Your task to perform on an android device: View the shopping cart on costco.com. Image 0: 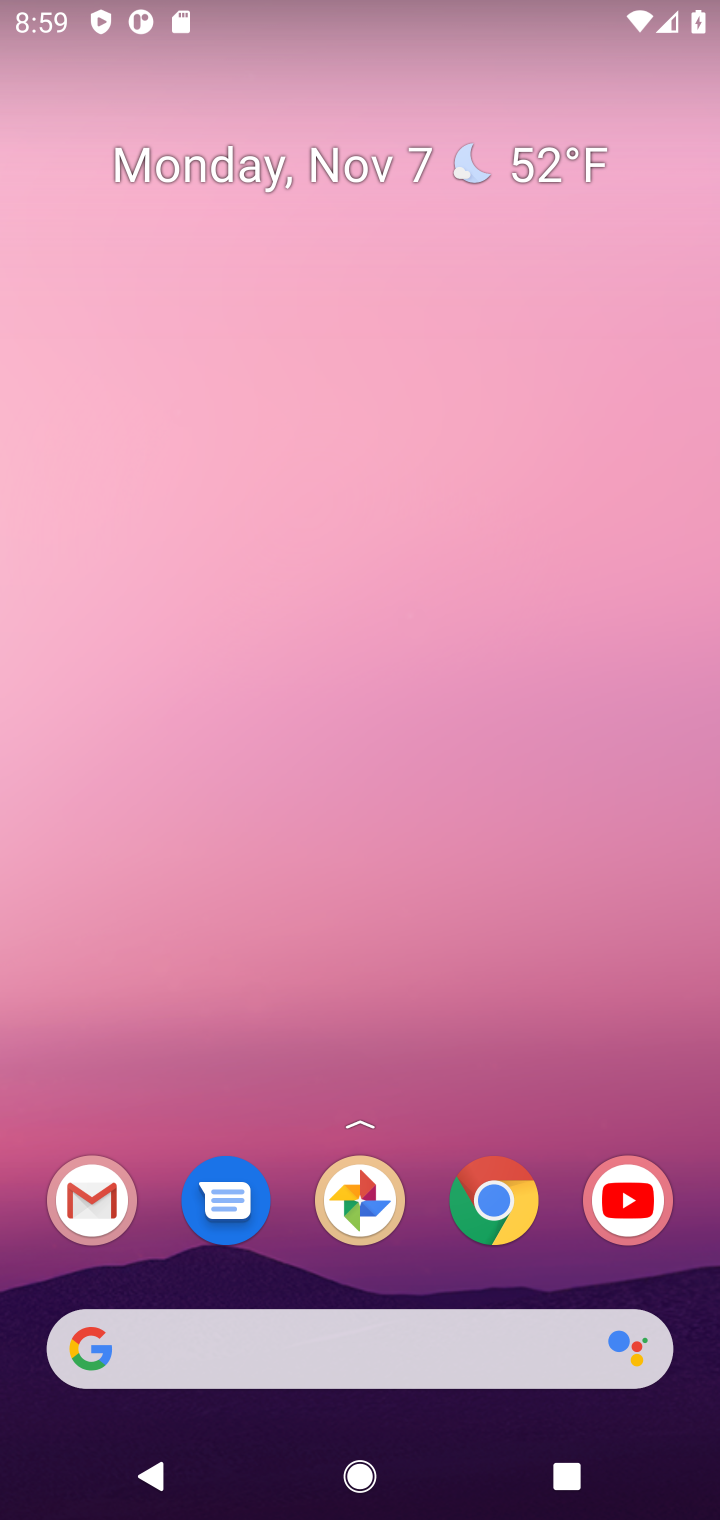
Step 0: click (506, 1195)
Your task to perform on an android device: View the shopping cart on costco.com. Image 1: 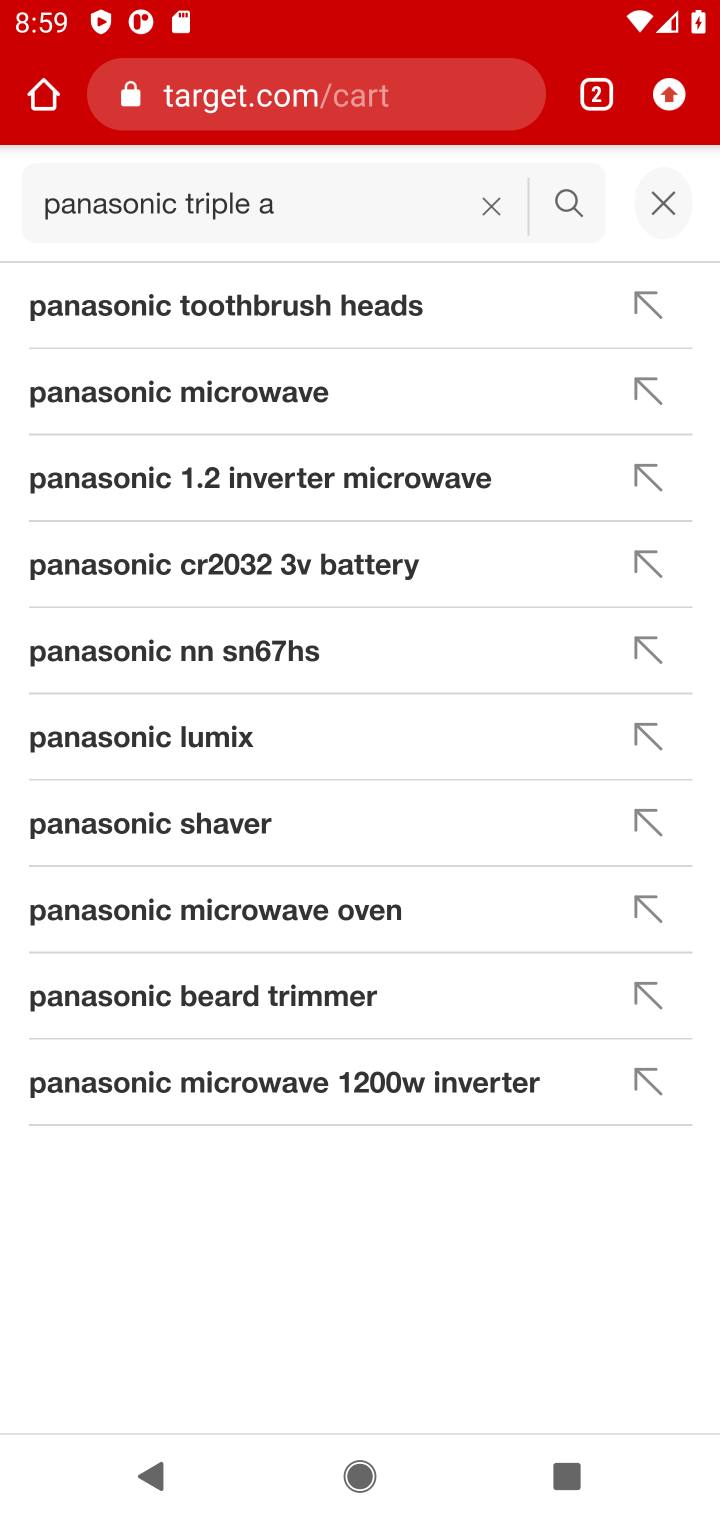
Step 1: click (339, 98)
Your task to perform on an android device: View the shopping cart on costco.com. Image 2: 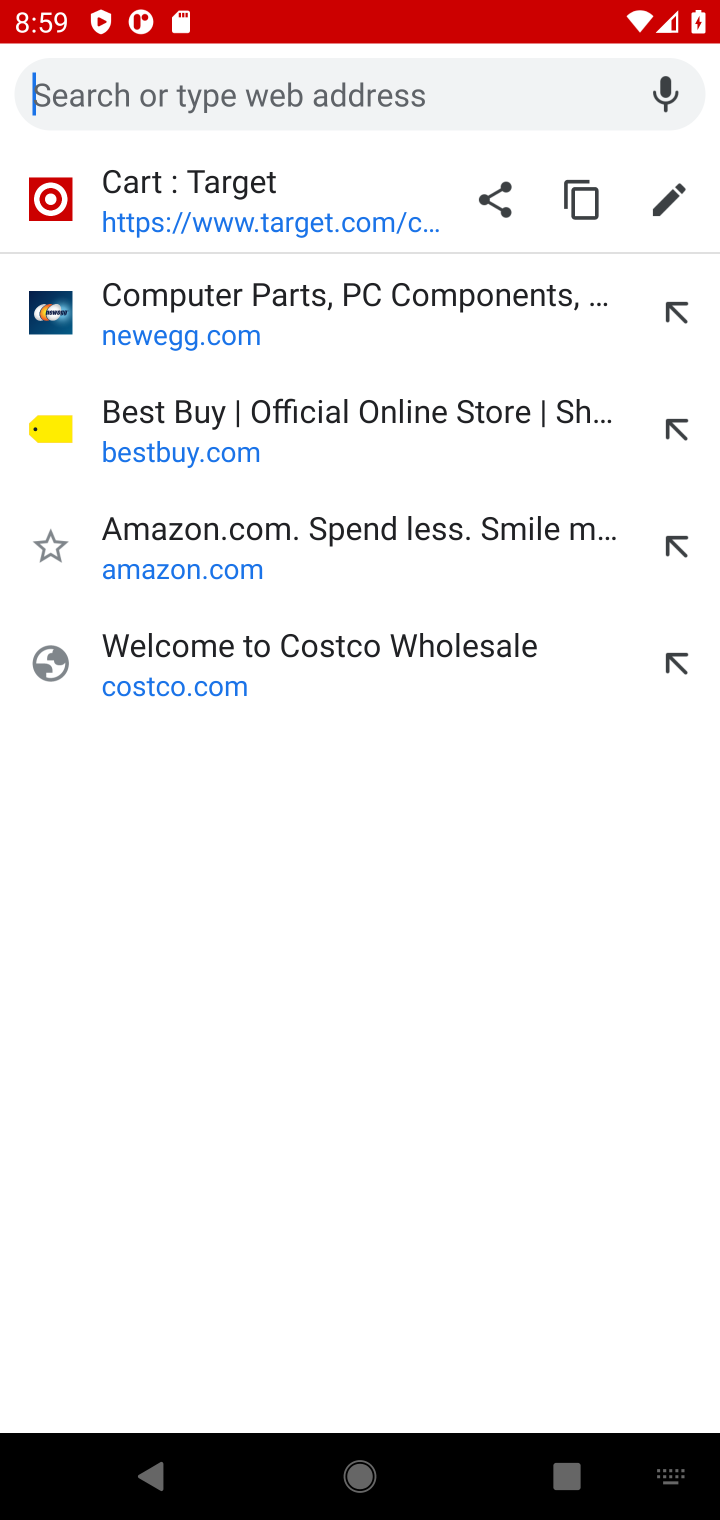
Step 2: type "costco.com"
Your task to perform on an android device: View the shopping cart on costco.com. Image 3: 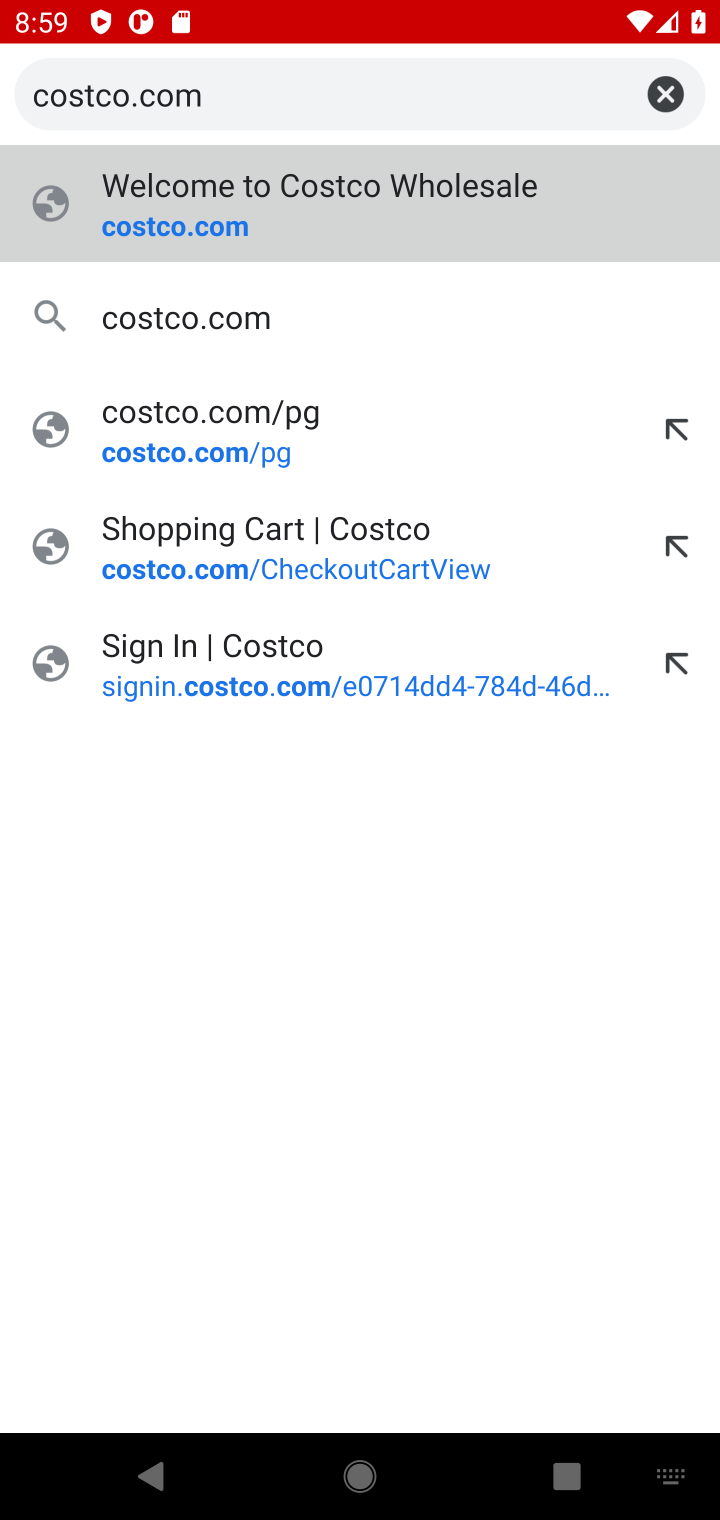
Step 3: click (245, 301)
Your task to perform on an android device: View the shopping cart on costco.com. Image 4: 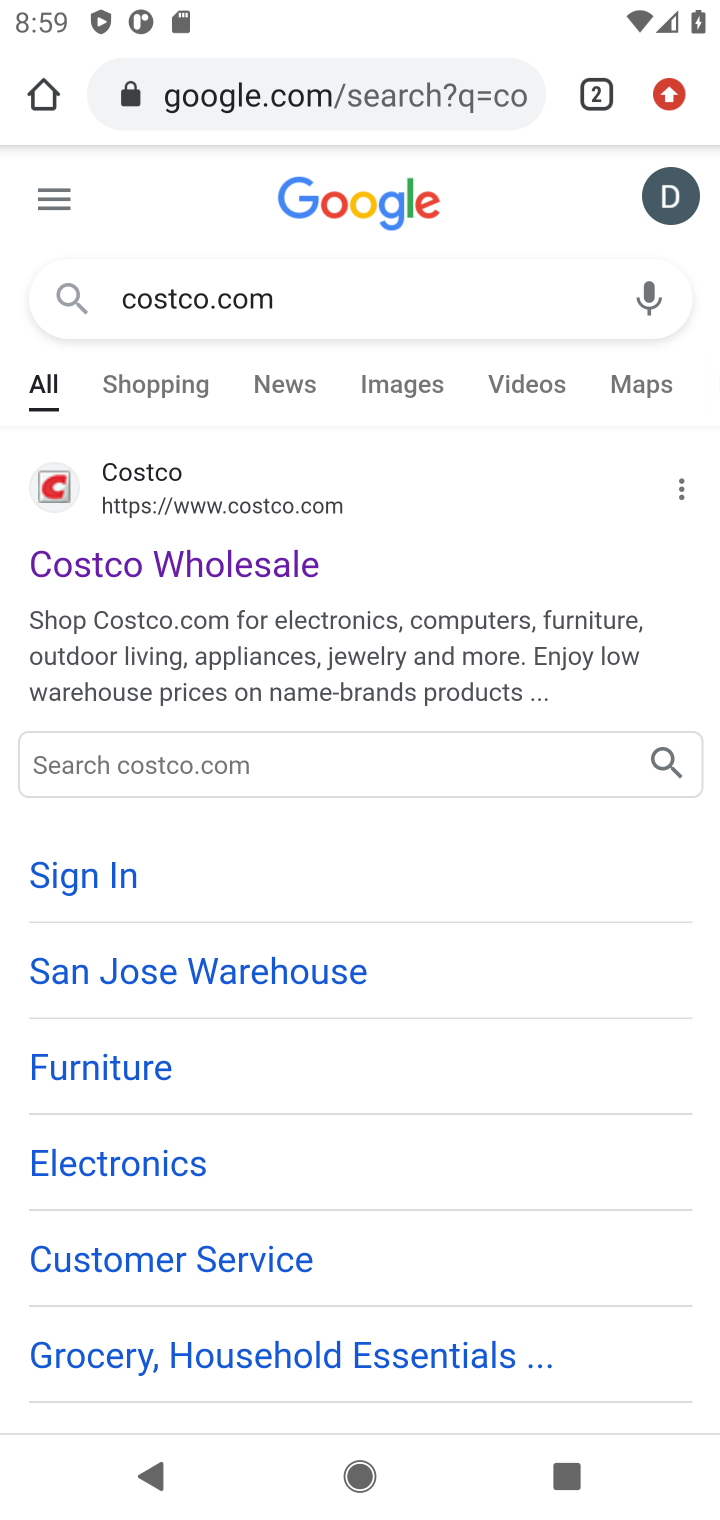
Step 4: click (274, 503)
Your task to perform on an android device: View the shopping cart on costco.com. Image 5: 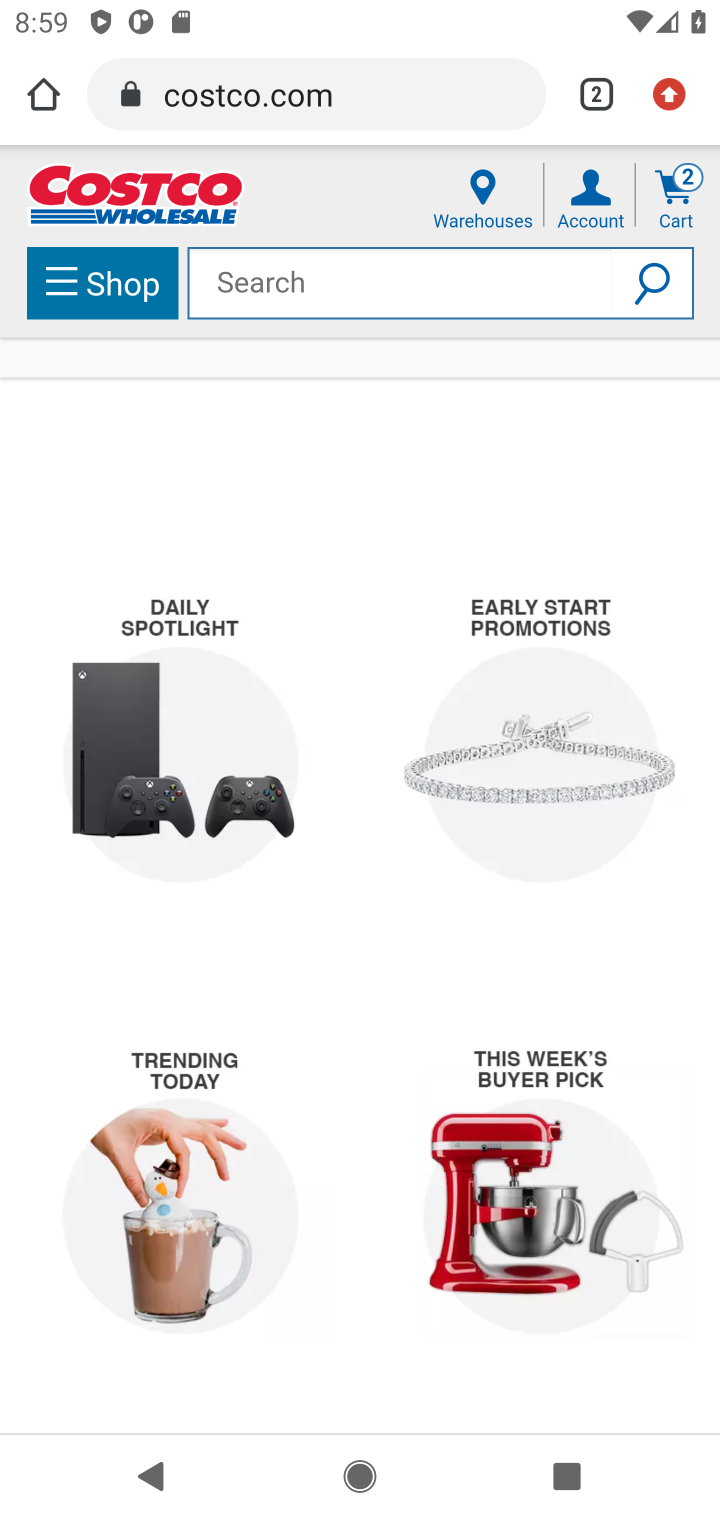
Step 5: click (679, 205)
Your task to perform on an android device: View the shopping cart on costco.com. Image 6: 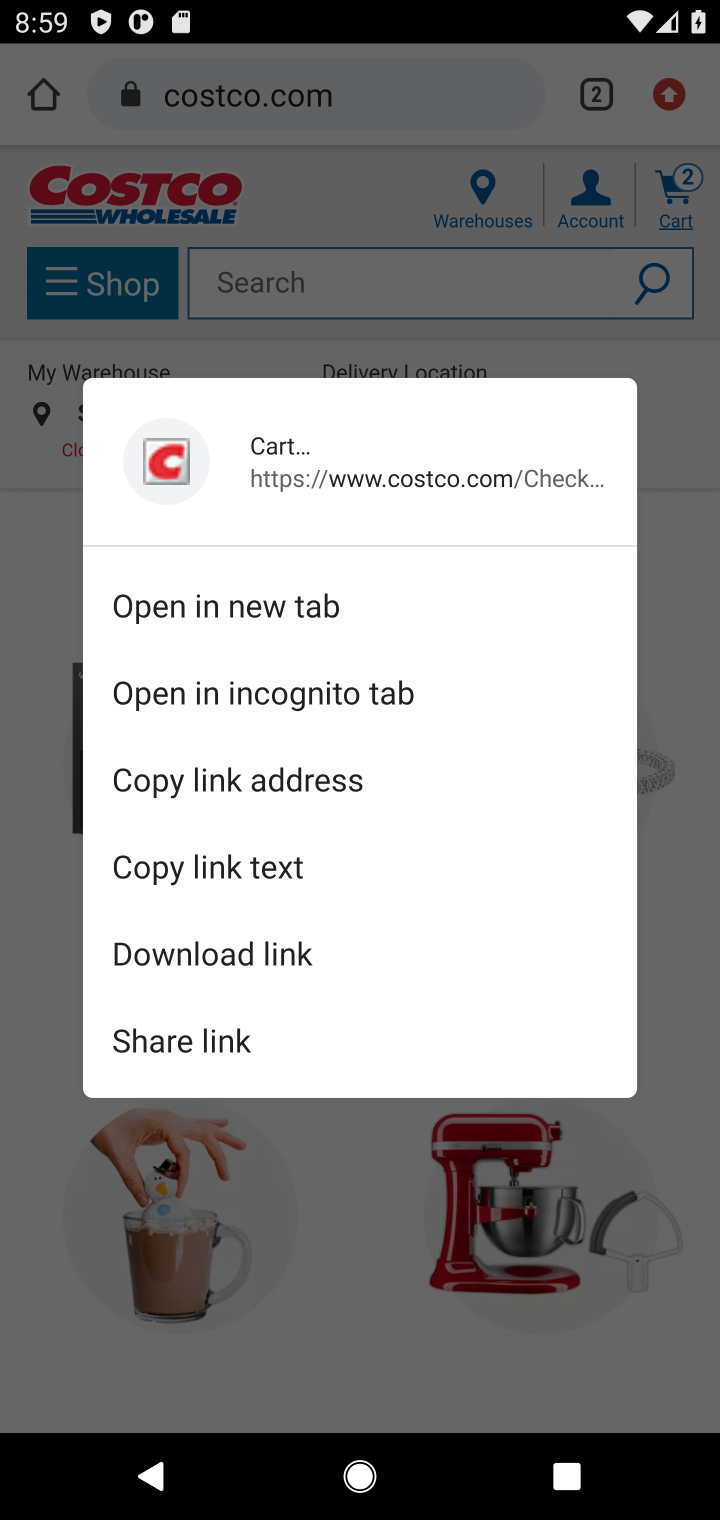
Step 6: click (679, 205)
Your task to perform on an android device: View the shopping cart on costco.com. Image 7: 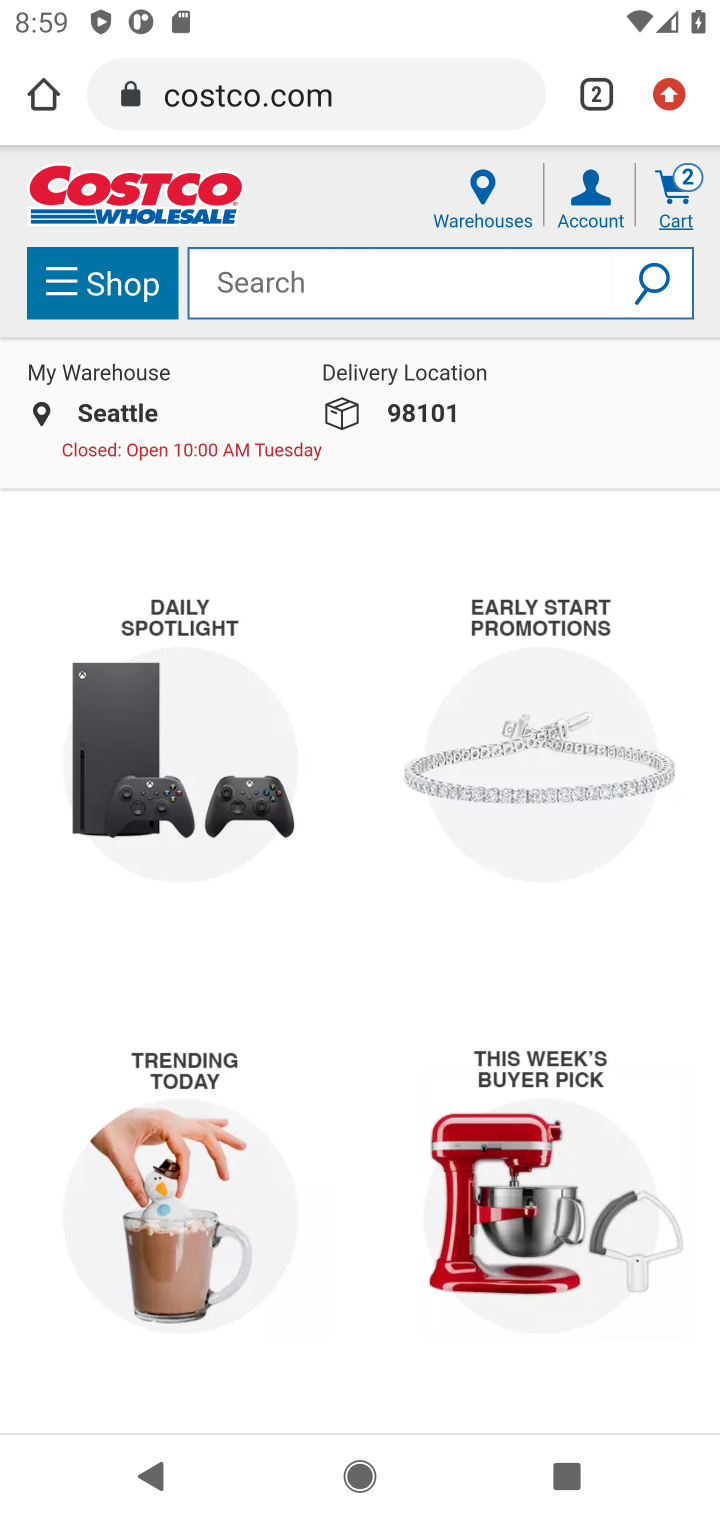
Step 7: click (678, 197)
Your task to perform on an android device: View the shopping cart on costco.com. Image 8: 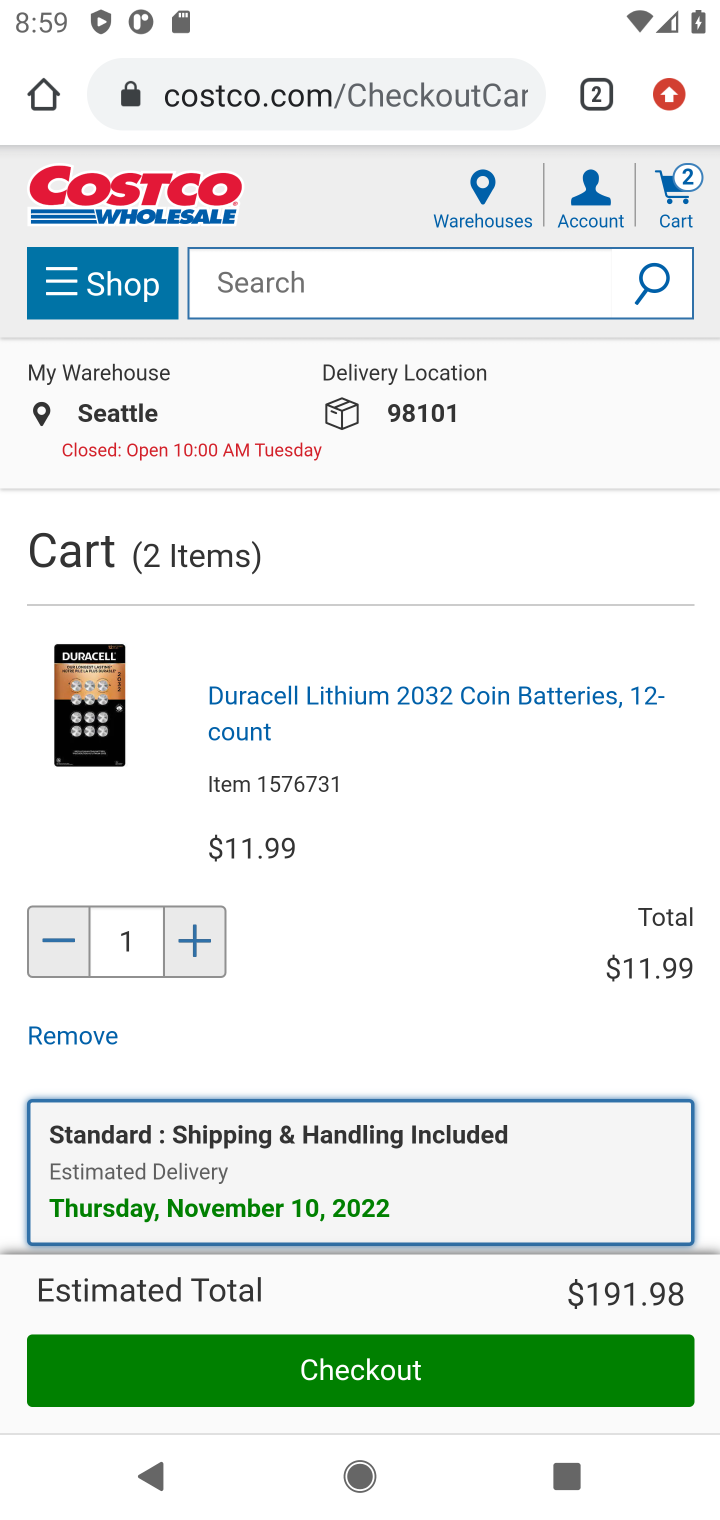
Step 8: click (64, 949)
Your task to perform on an android device: View the shopping cart on costco.com. Image 9: 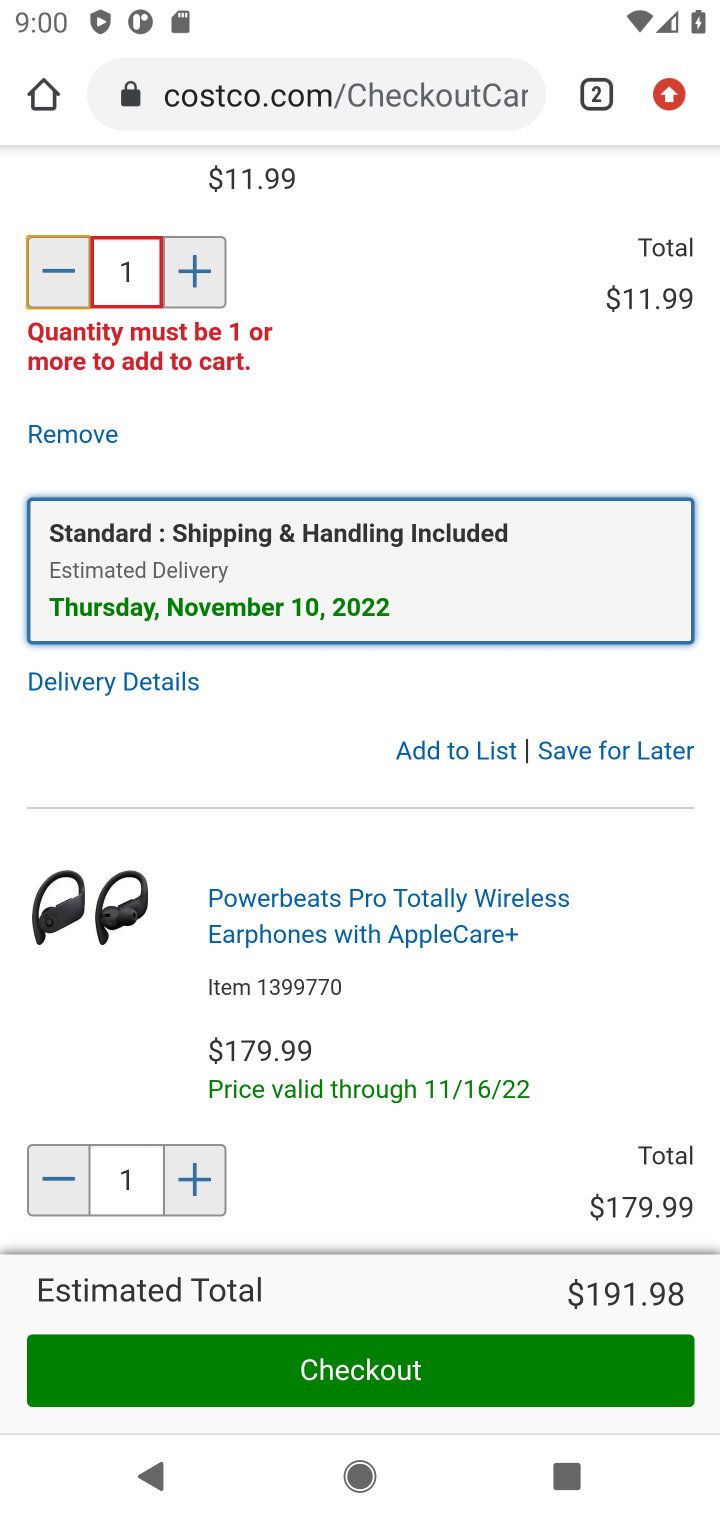
Step 9: click (45, 1172)
Your task to perform on an android device: View the shopping cart on costco.com. Image 10: 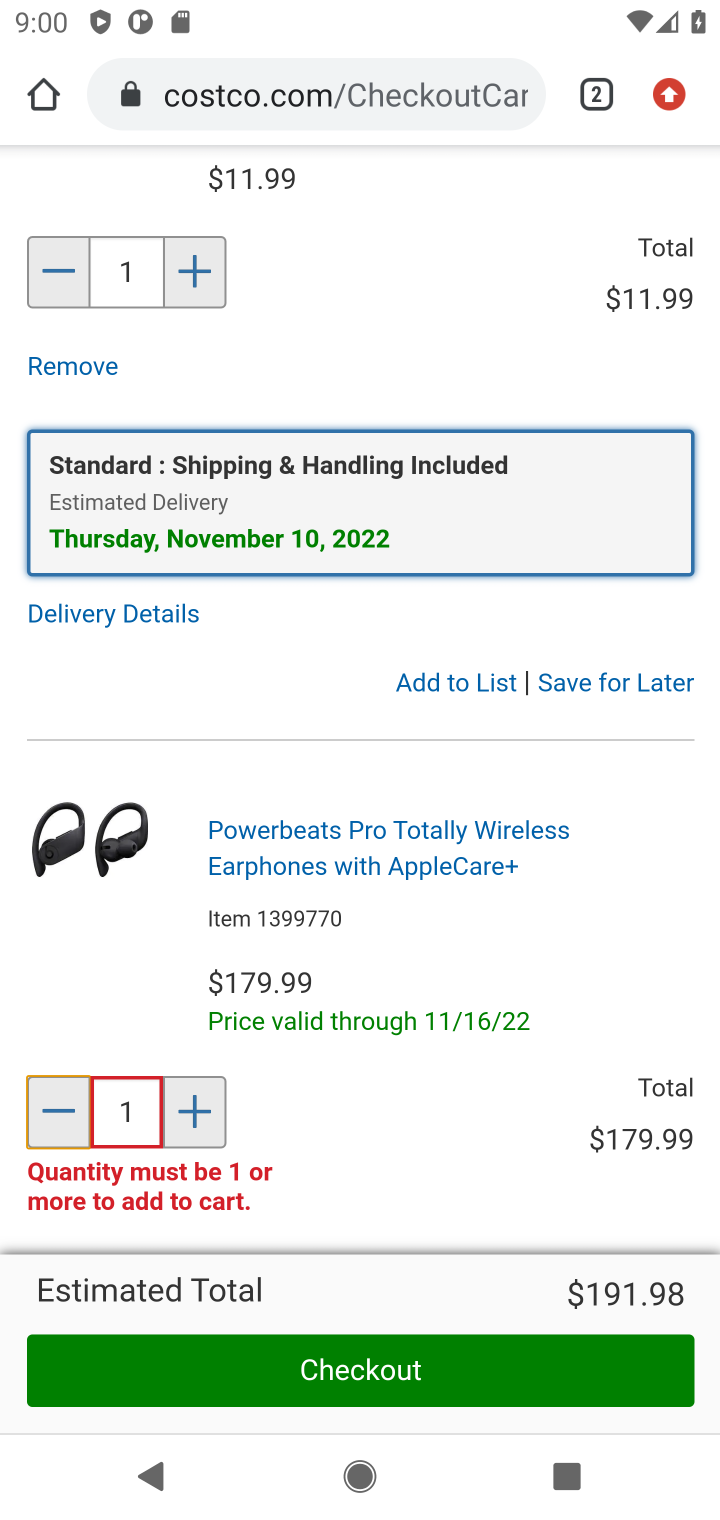
Step 10: click (646, 687)
Your task to perform on an android device: View the shopping cart on costco.com. Image 11: 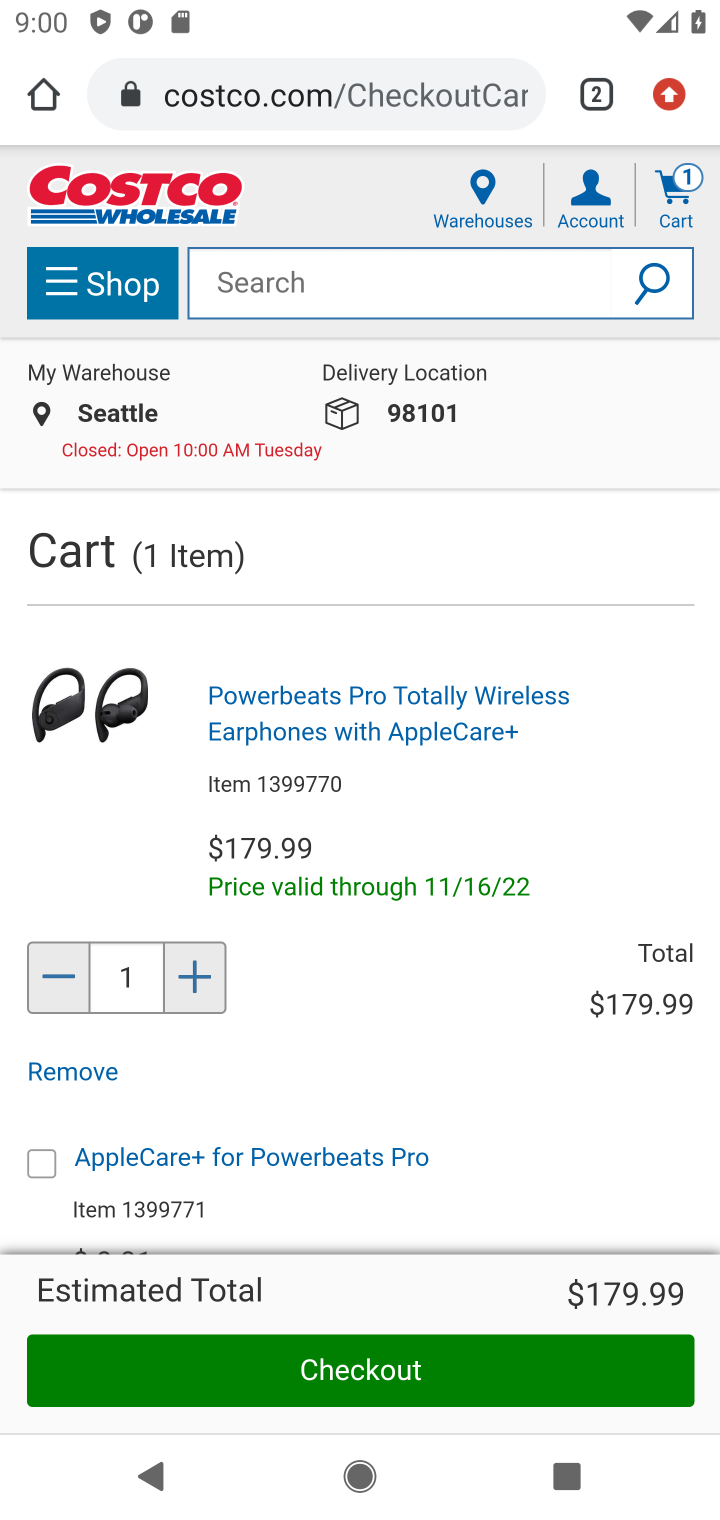
Step 11: drag from (635, 1150) to (537, 680)
Your task to perform on an android device: View the shopping cart on costco.com. Image 12: 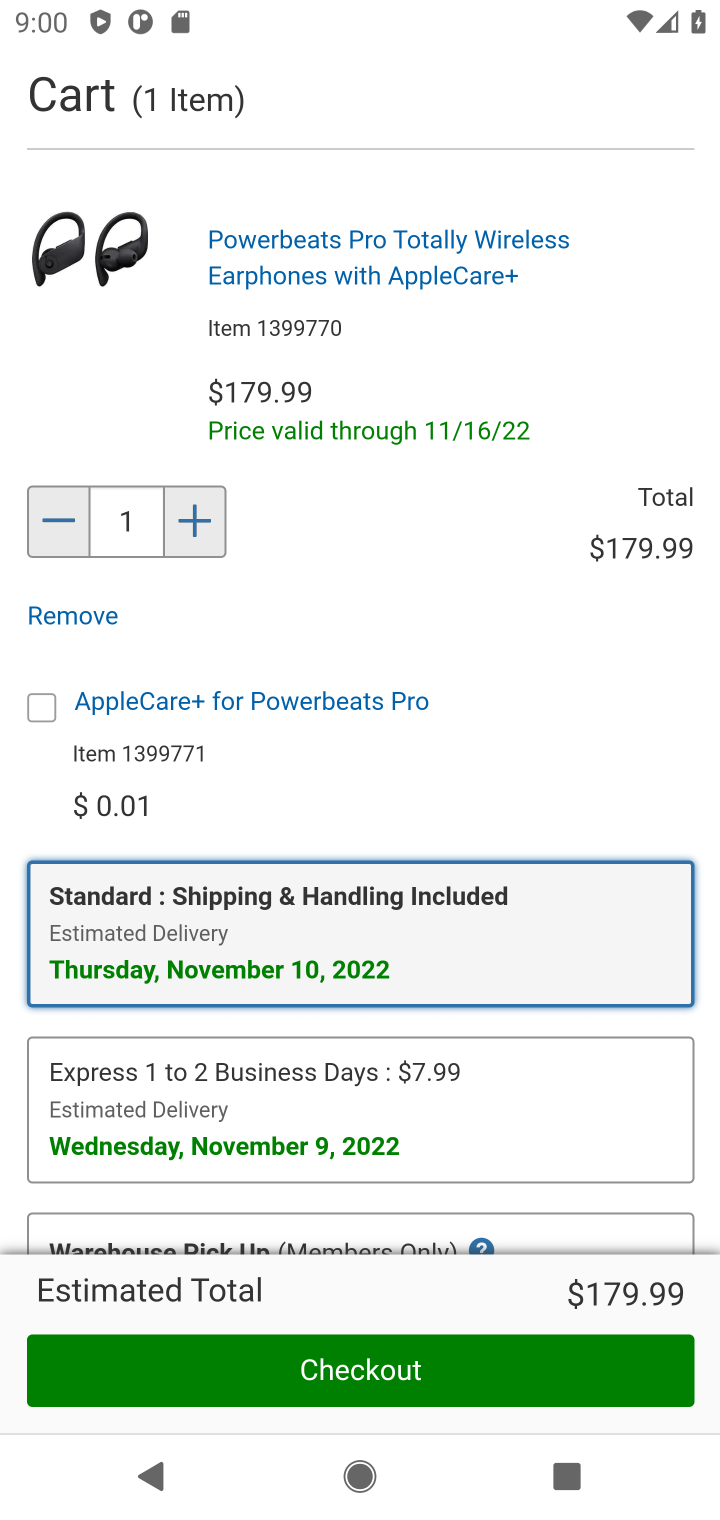
Step 12: click (56, 604)
Your task to perform on an android device: View the shopping cart on costco.com. Image 13: 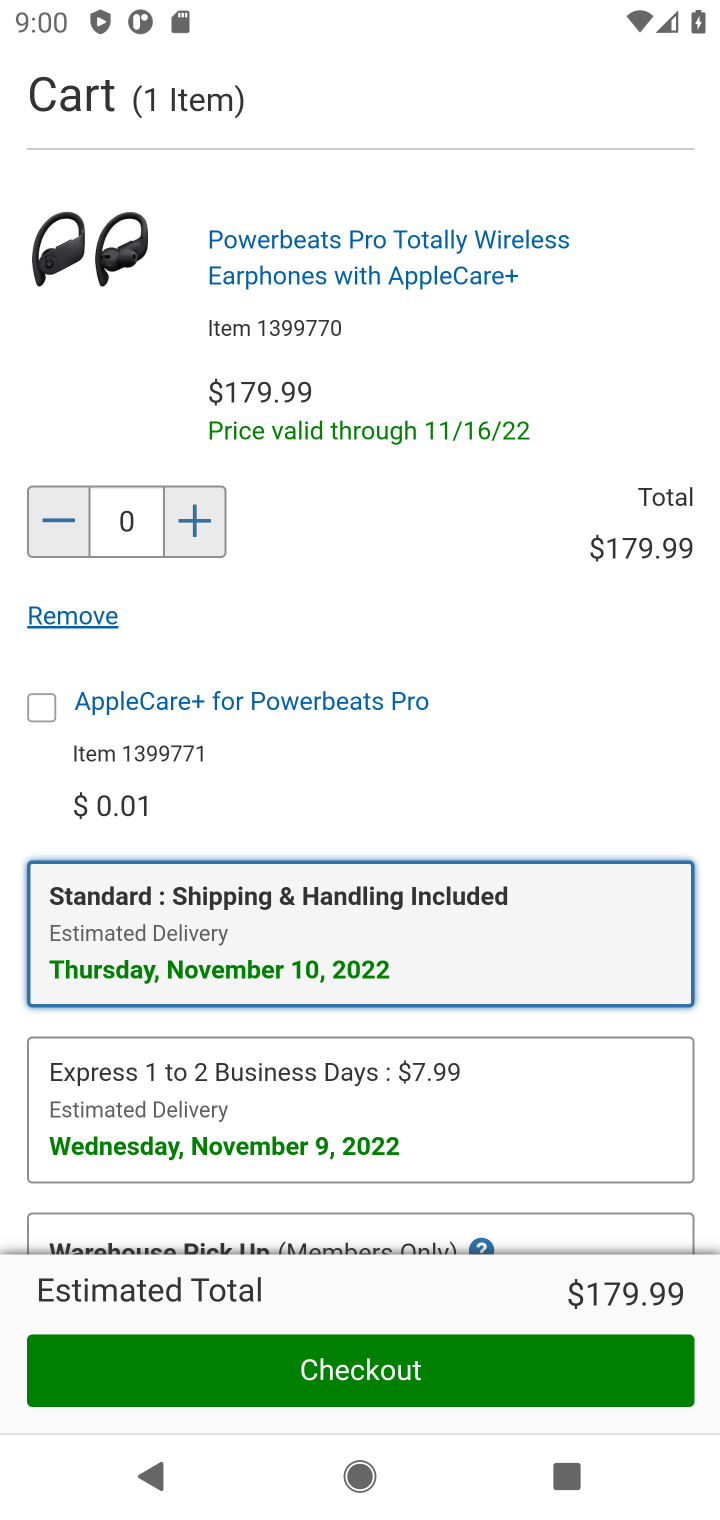
Step 13: click (73, 611)
Your task to perform on an android device: View the shopping cart on costco.com. Image 14: 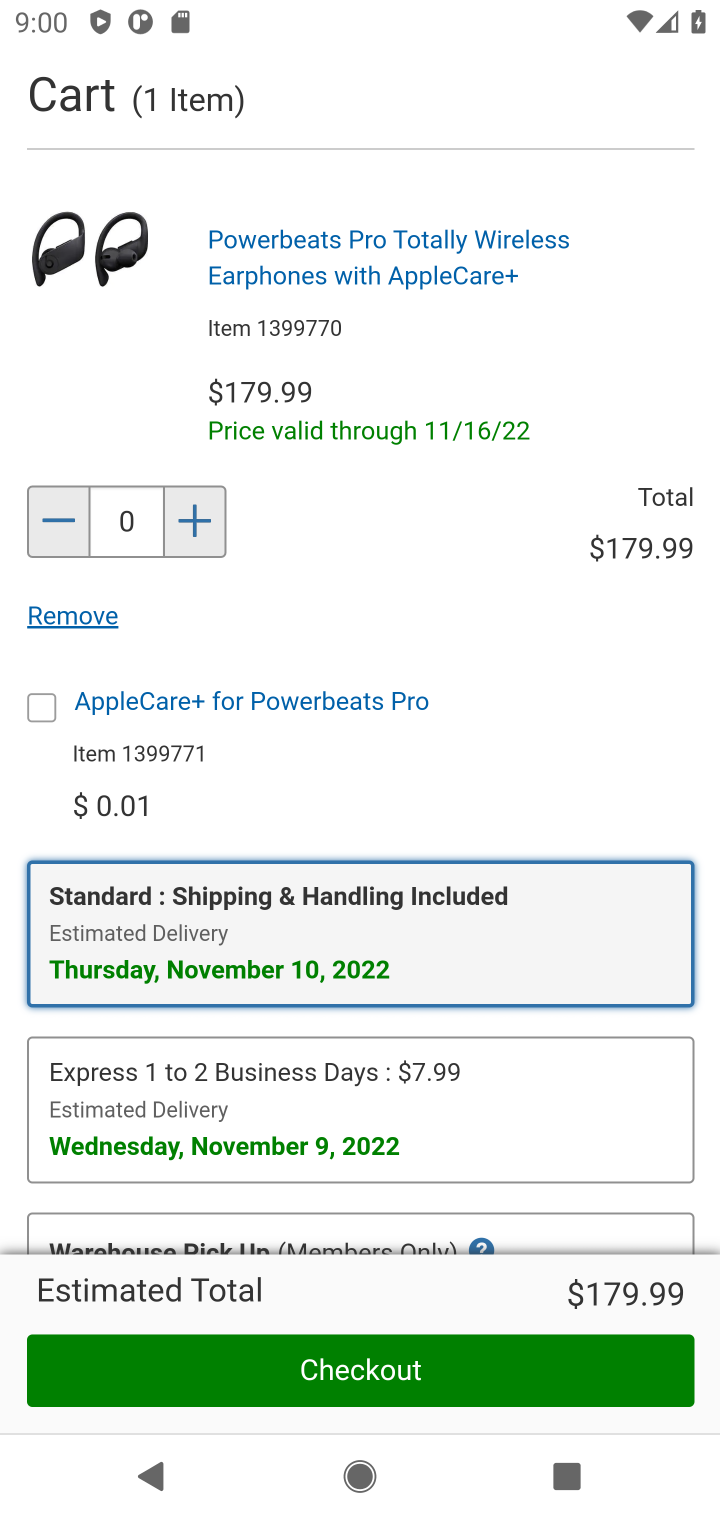
Step 14: drag from (512, 626) to (622, 1121)
Your task to perform on an android device: View the shopping cart on costco.com. Image 15: 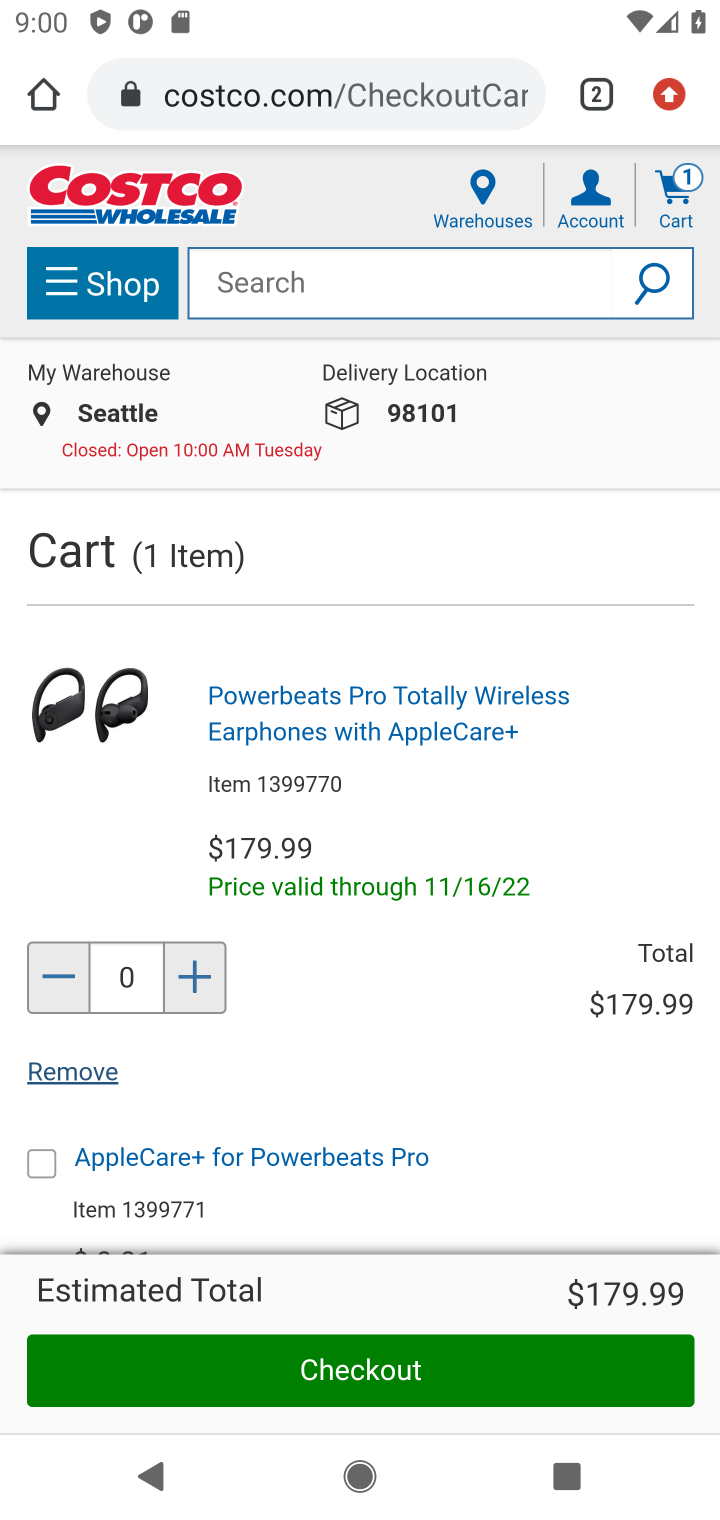
Step 15: click (70, 982)
Your task to perform on an android device: View the shopping cart on costco.com. Image 16: 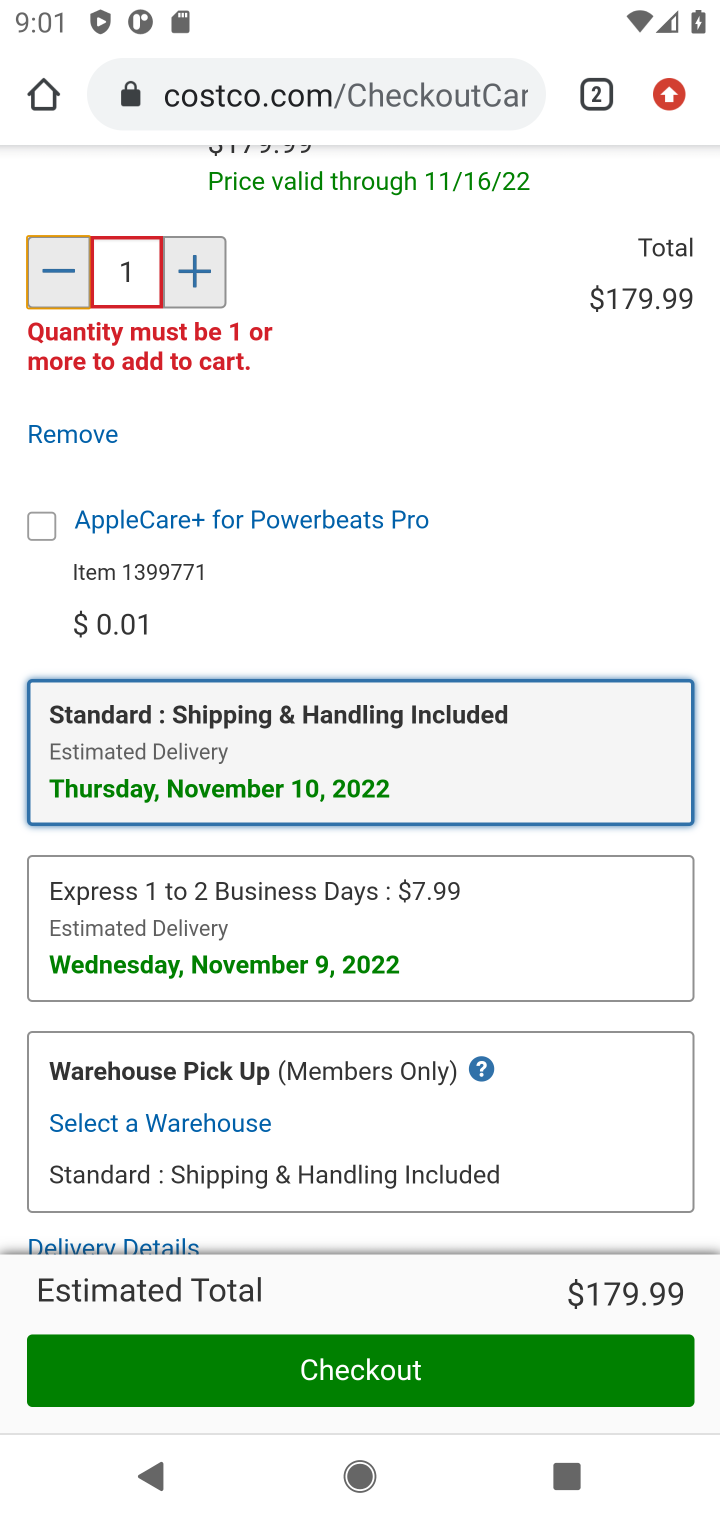
Step 16: task complete